Your task to perform on an android device: turn off wifi Image 0: 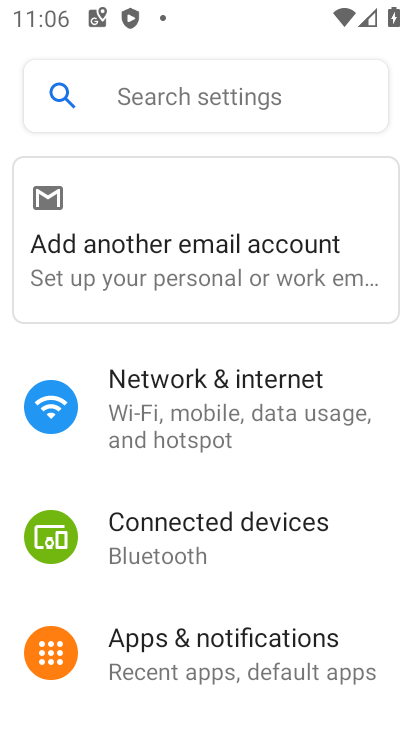
Step 0: drag from (311, 3) to (344, 687)
Your task to perform on an android device: turn off wifi Image 1: 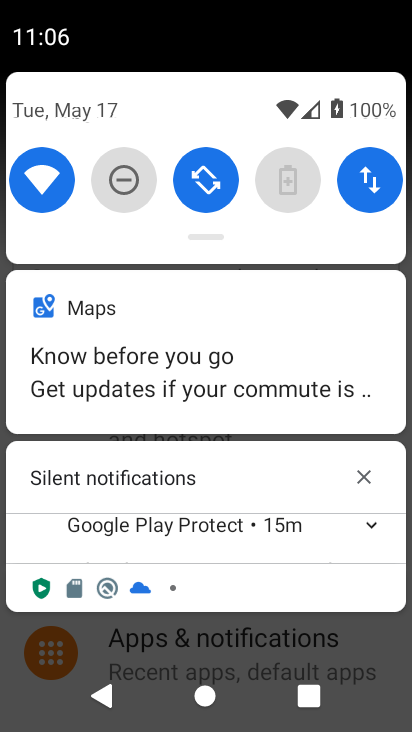
Step 1: click (54, 191)
Your task to perform on an android device: turn off wifi Image 2: 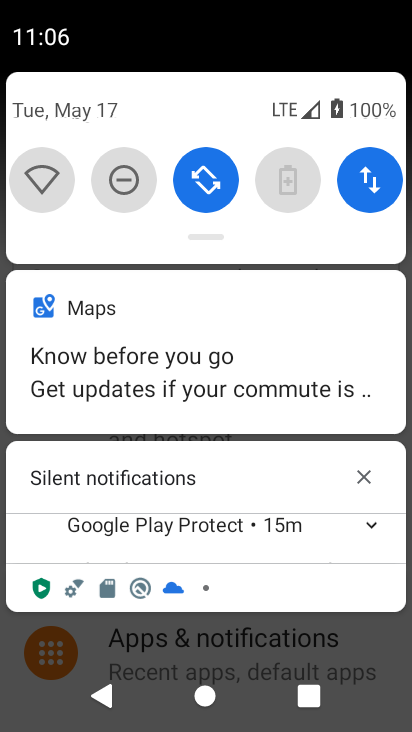
Step 2: task complete